Your task to perform on an android device: turn on the 24-hour format for clock Image 0: 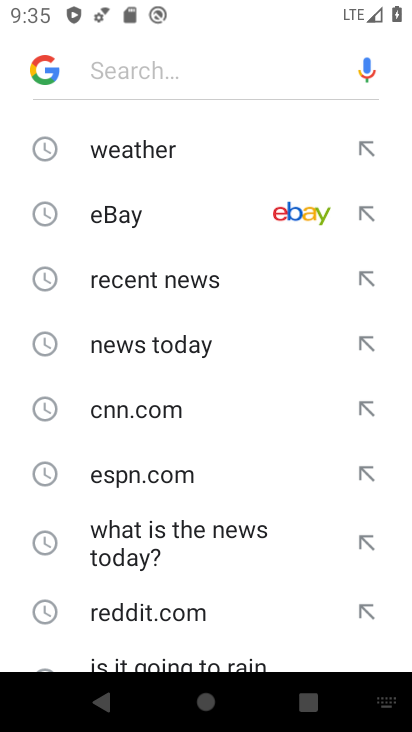
Step 0: press home button
Your task to perform on an android device: turn on the 24-hour format for clock Image 1: 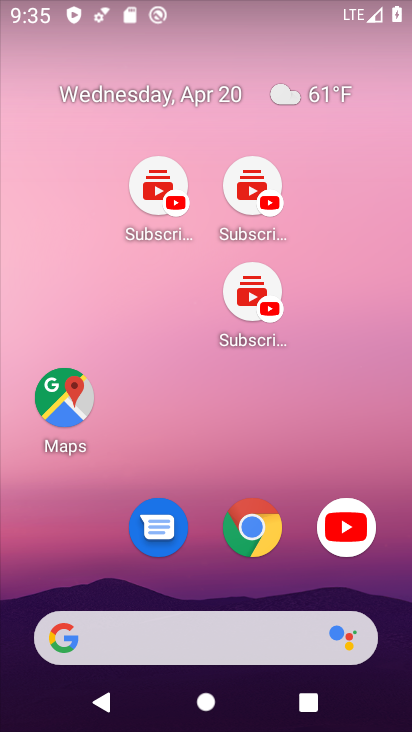
Step 1: drag from (265, 202) to (263, 163)
Your task to perform on an android device: turn on the 24-hour format for clock Image 2: 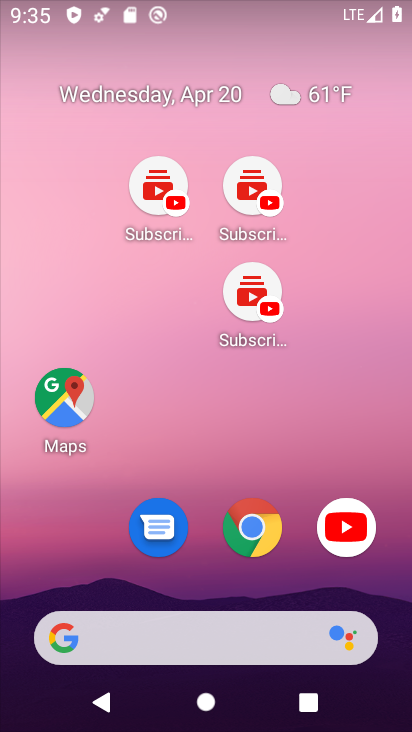
Step 2: drag from (232, 212) to (216, 169)
Your task to perform on an android device: turn on the 24-hour format for clock Image 3: 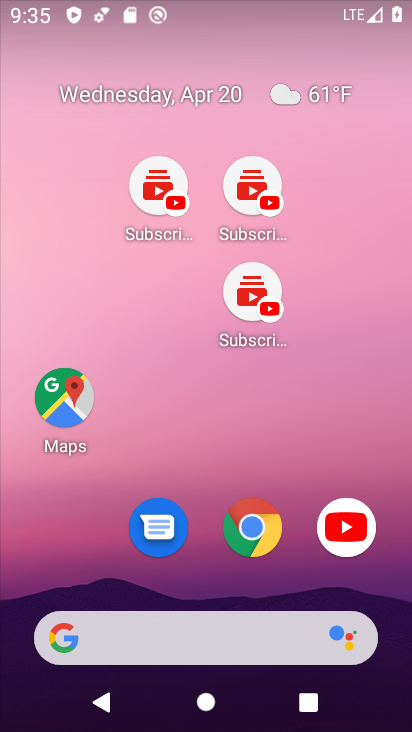
Step 3: drag from (320, 480) to (165, 76)
Your task to perform on an android device: turn on the 24-hour format for clock Image 4: 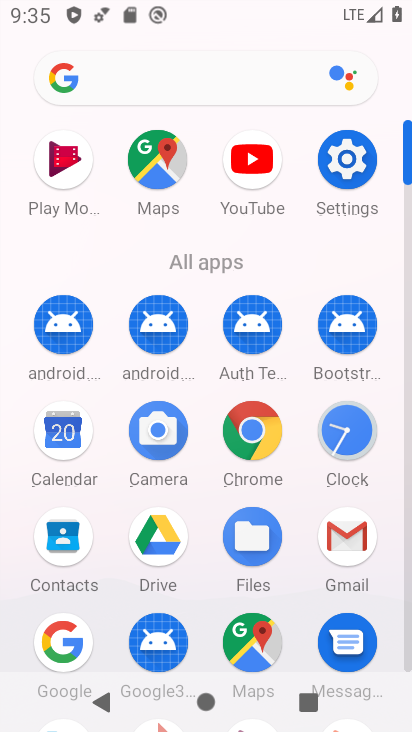
Step 4: click (341, 434)
Your task to perform on an android device: turn on the 24-hour format for clock Image 5: 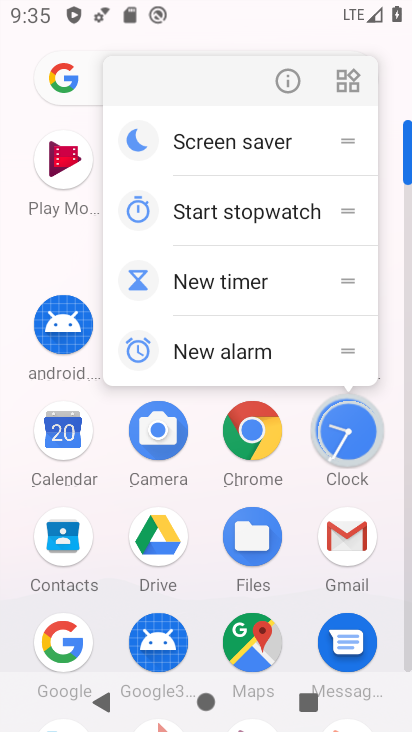
Step 5: click (340, 433)
Your task to perform on an android device: turn on the 24-hour format for clock Image 6: 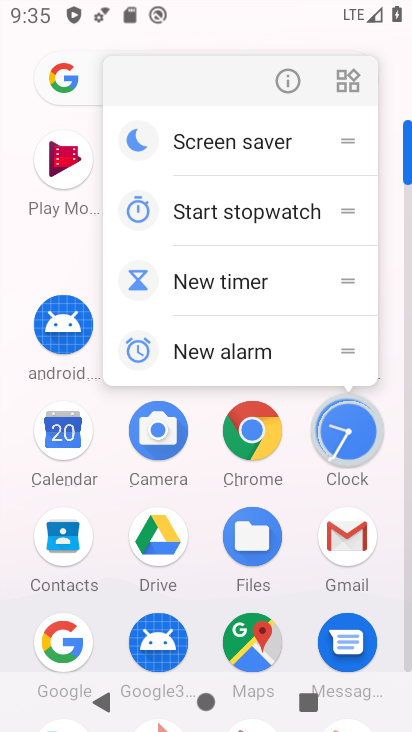
Step 6: click (339, 431)
Your task to perform on an android device: turn on the 24-hour format for clock Image 7: 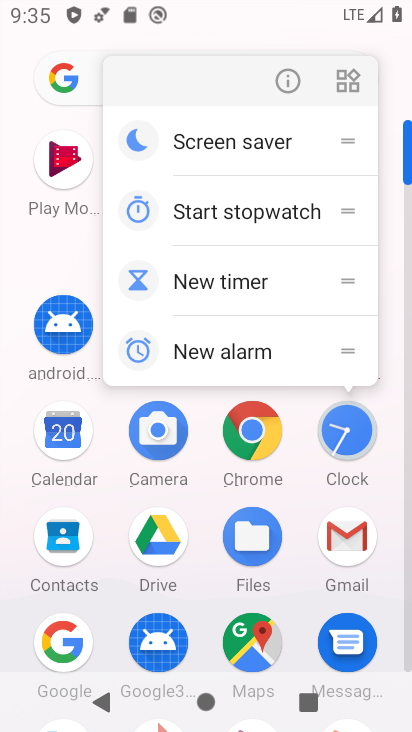
Step 7: click (339, 431)
Your task to perform on an android device: turn on the 24-hour format for clock Image 8: 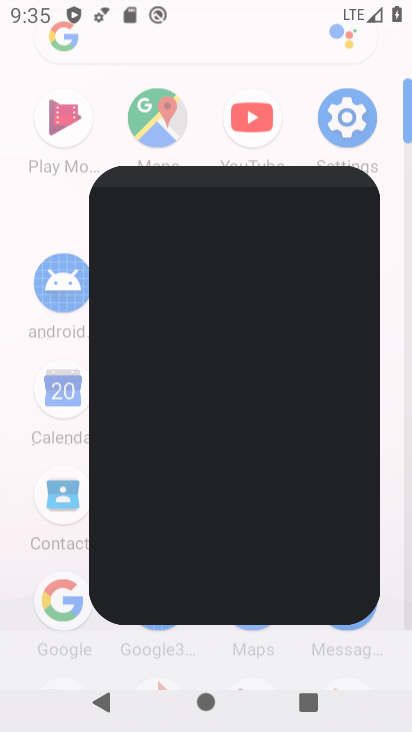
Step 8: click (339, 431)
Your task to perform on an android device: turn on the 24-hour format for clock Image 9: 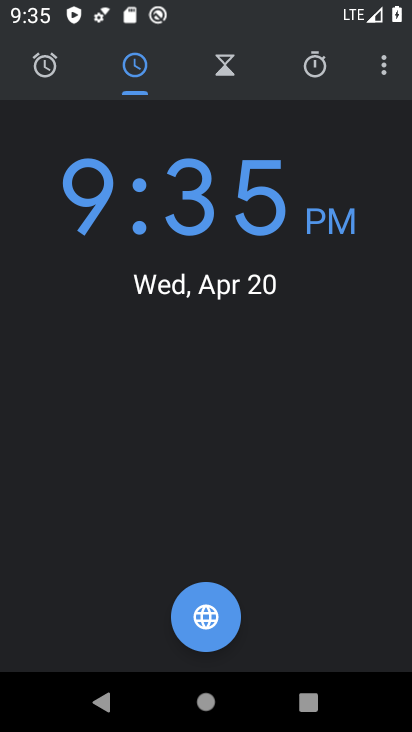
Step 9: click (373, 72)
Your task to perform on an android device: turn on the 24-hour format for clock Image 10: 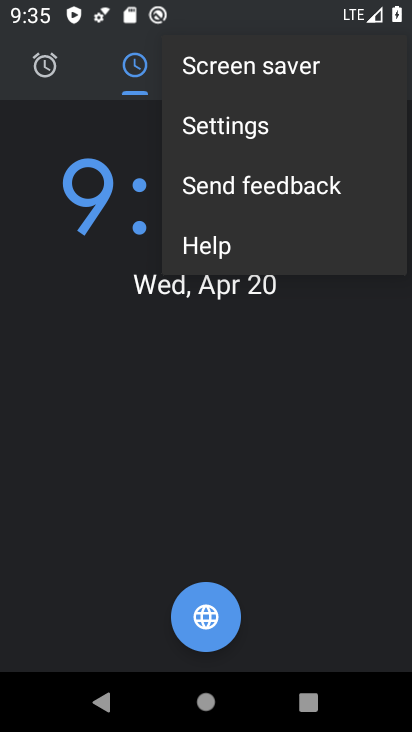
Step 10: click (237, 124)
Your task to perform on an android device: turn on the 24-hour format for clock Image 11: 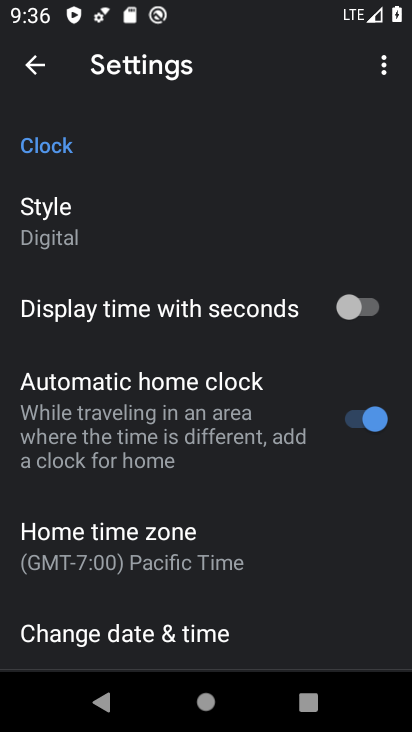
Step 11: drag from (277, 535) to (259, 192)
Your task to perform on an android device: turn on the 24-hour format for clock Image 12: 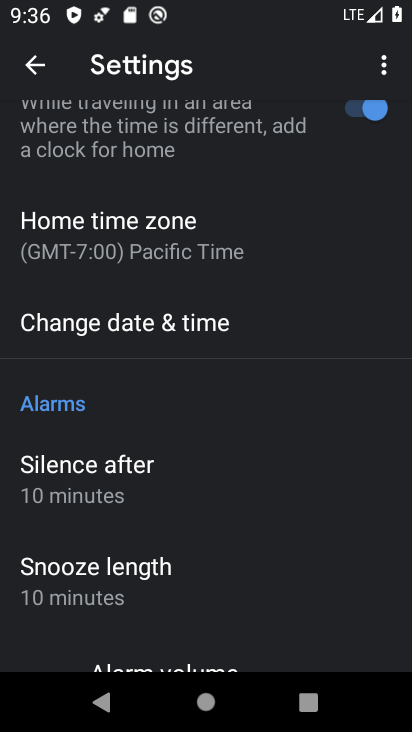
Step 12: drag from (258, 465) to (234, 189)
Your task to perform on an android device: turn on the 24-hour format for clock Image 13: 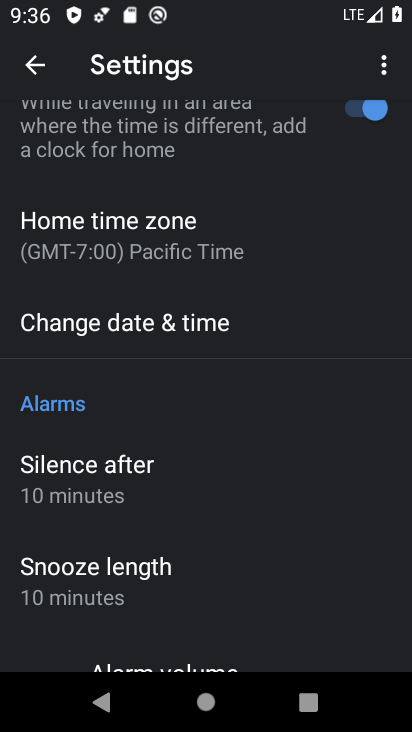
Step 13: click (160, 318)
Your task to perform on an android device: turn on the 24-hour format for clock Image 14: 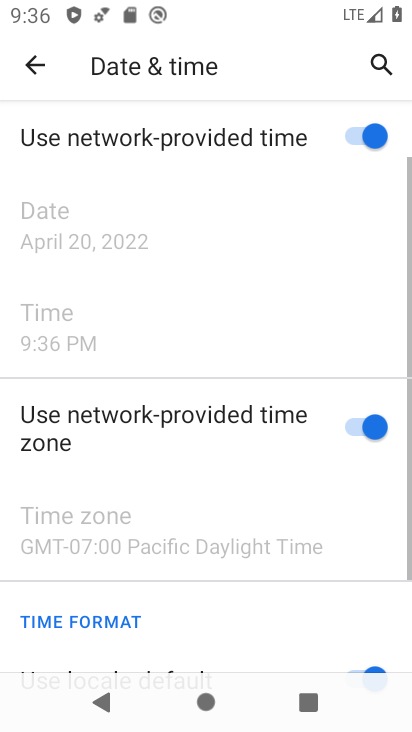
Step 14: drag from (245, 532) to (208, 183)
Your task to perform on an android device: turn on the 24-hour format for clock Image 15: 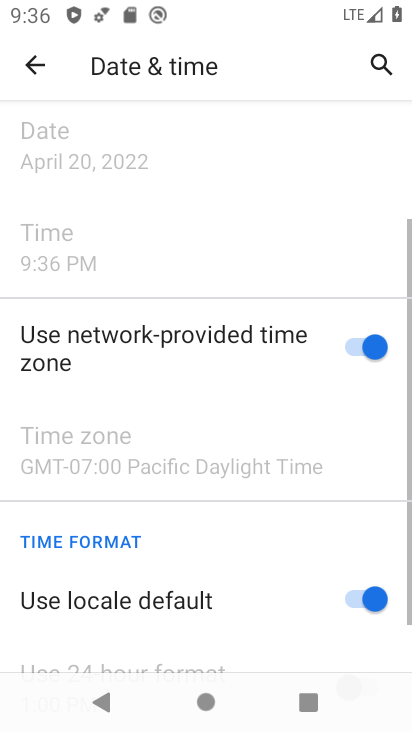
Step 15: drag from (230, 430) to (215, 126)
Your task to perform on an android device: turn on the 24-hour format for clock Image 16: 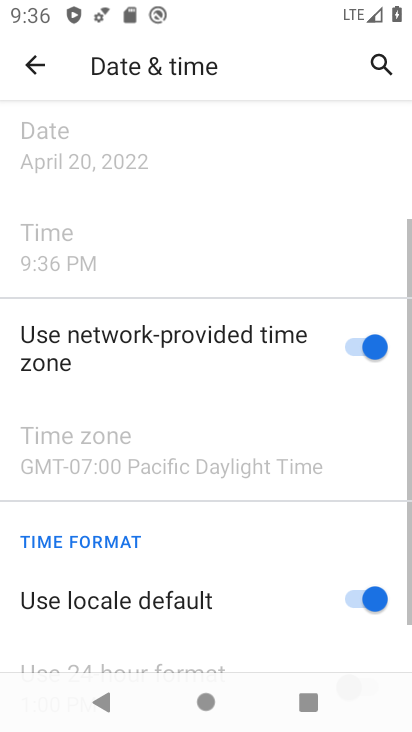
Step 16: drag from (243, 501) to (221, 87)
Your task to perform on an android device: turn on the 24-hour format for clock Image 17: 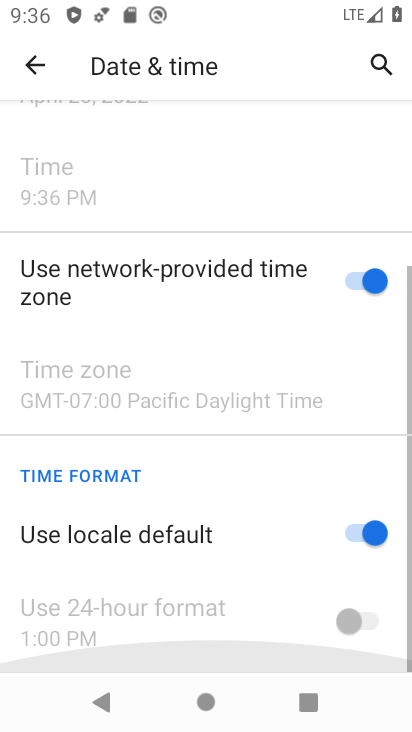
Step 17: drag from (213, 255) to (213, 0)
Your task to perform on an android device: turn on the 24-hour format for clock Image 18: 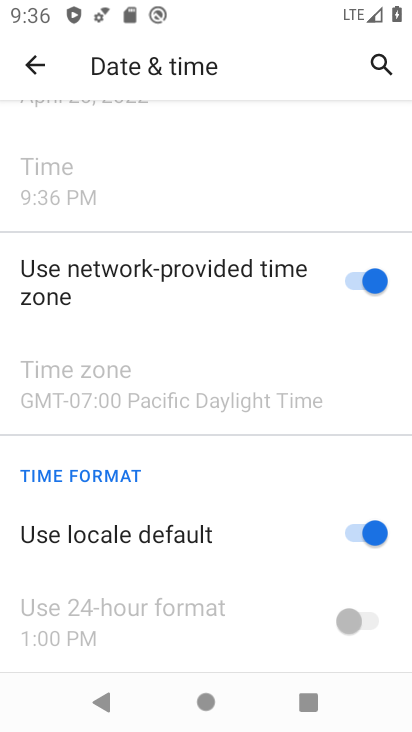
Step 18: click (368, 533)
Your task to perform on an android device: turn on the 24-hour format for clock Image 19: 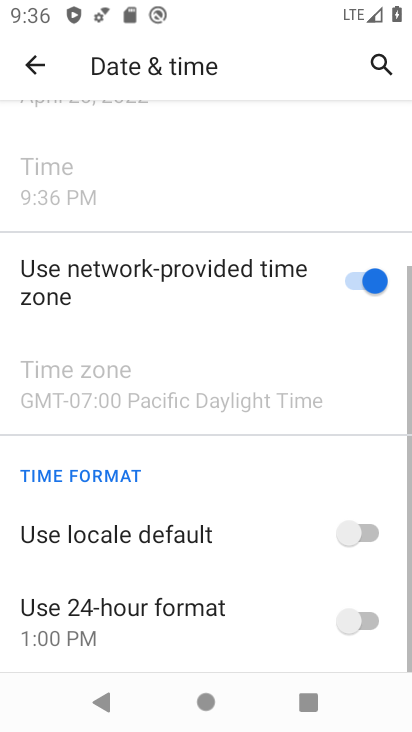
Step 19: click (345, 628)
Your task to perform on an android device: turn on the 24-hour format for clock Image 20: 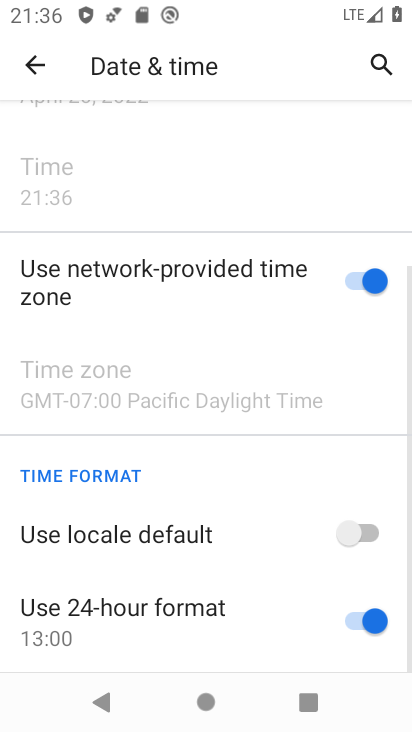
Step 20: task complete